Your task to perform on an android device: Search for the best selling books on Target. Image 0: 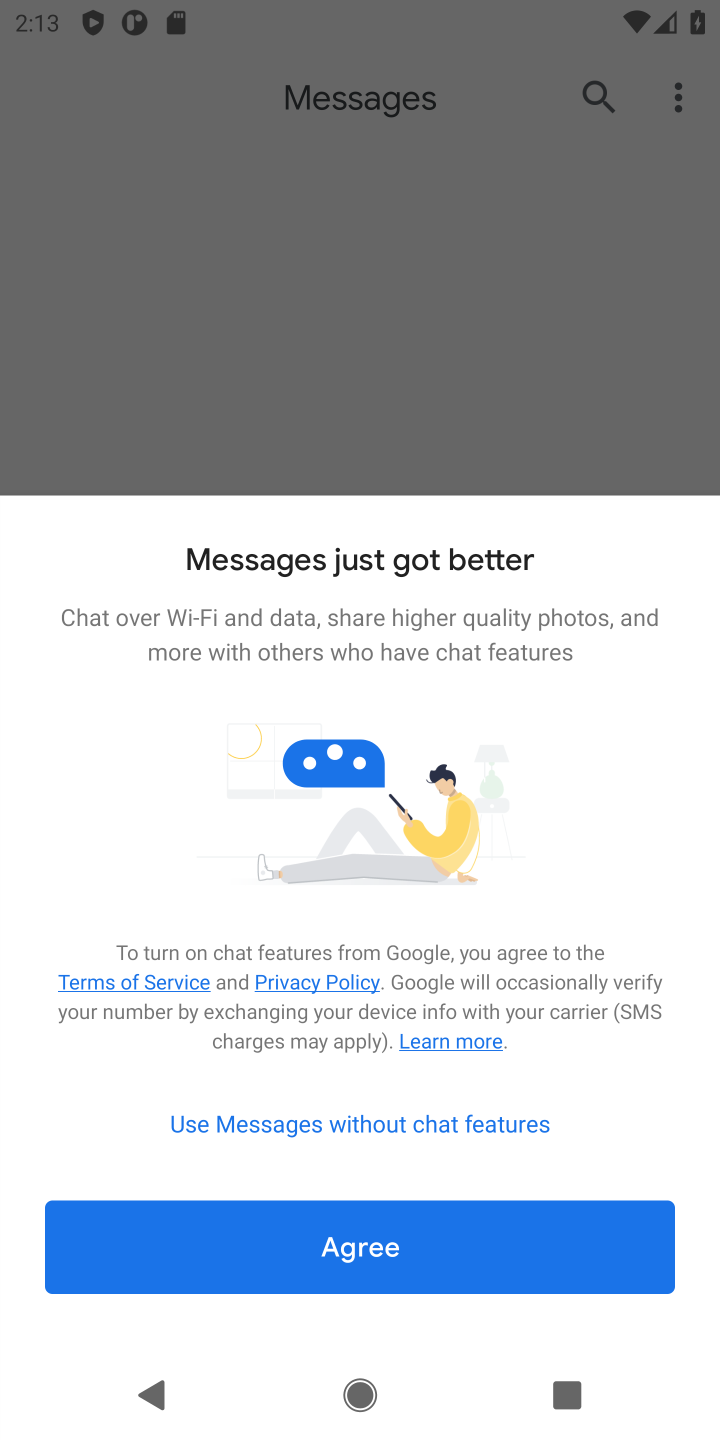
Step 0: press home button
Your task to perform on an android device: Search for the best selling books on Target. Image 1: 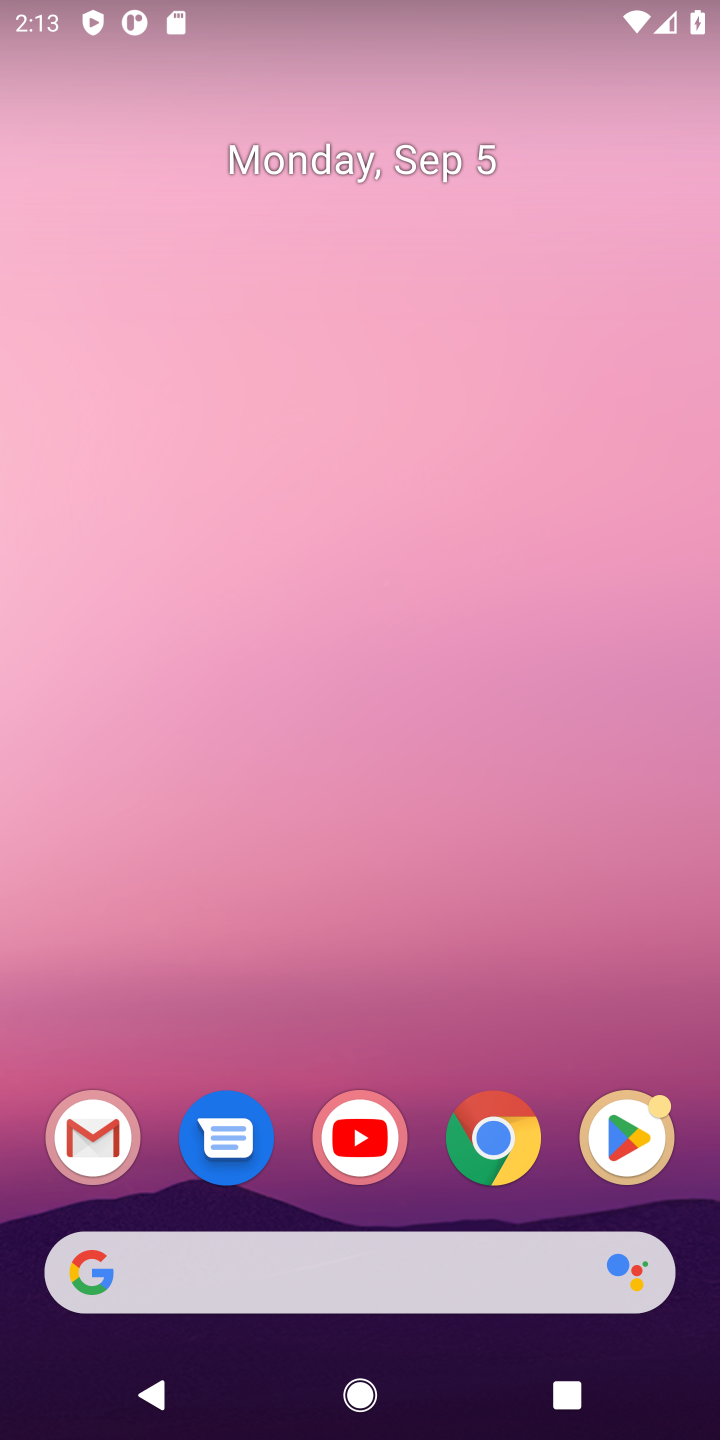
Step 1: click (508, 1133)
Your task to perform on an android device: Search for the best selling books on Target. Image 2: 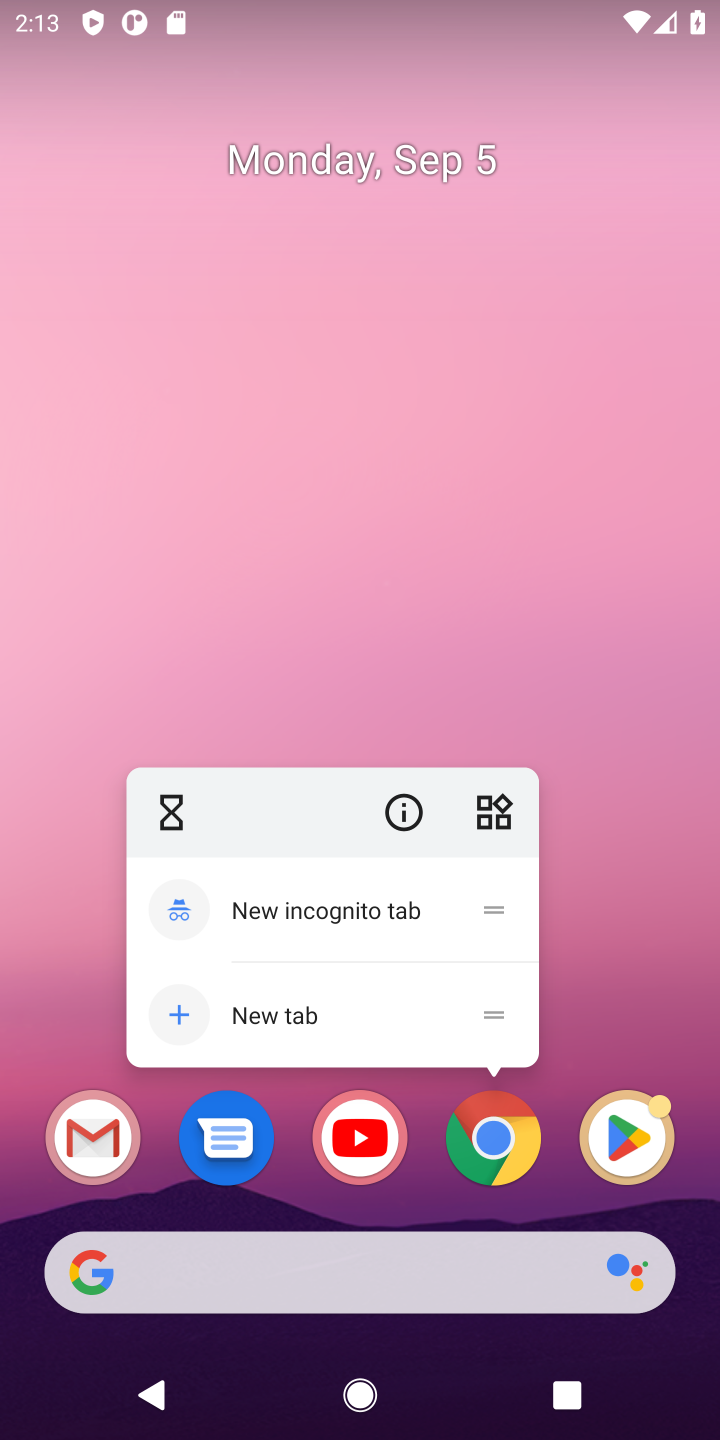
Step 2: click (508, 1135)
Your task to perform on an android device: Search for the best selling books on Target. Image 3: 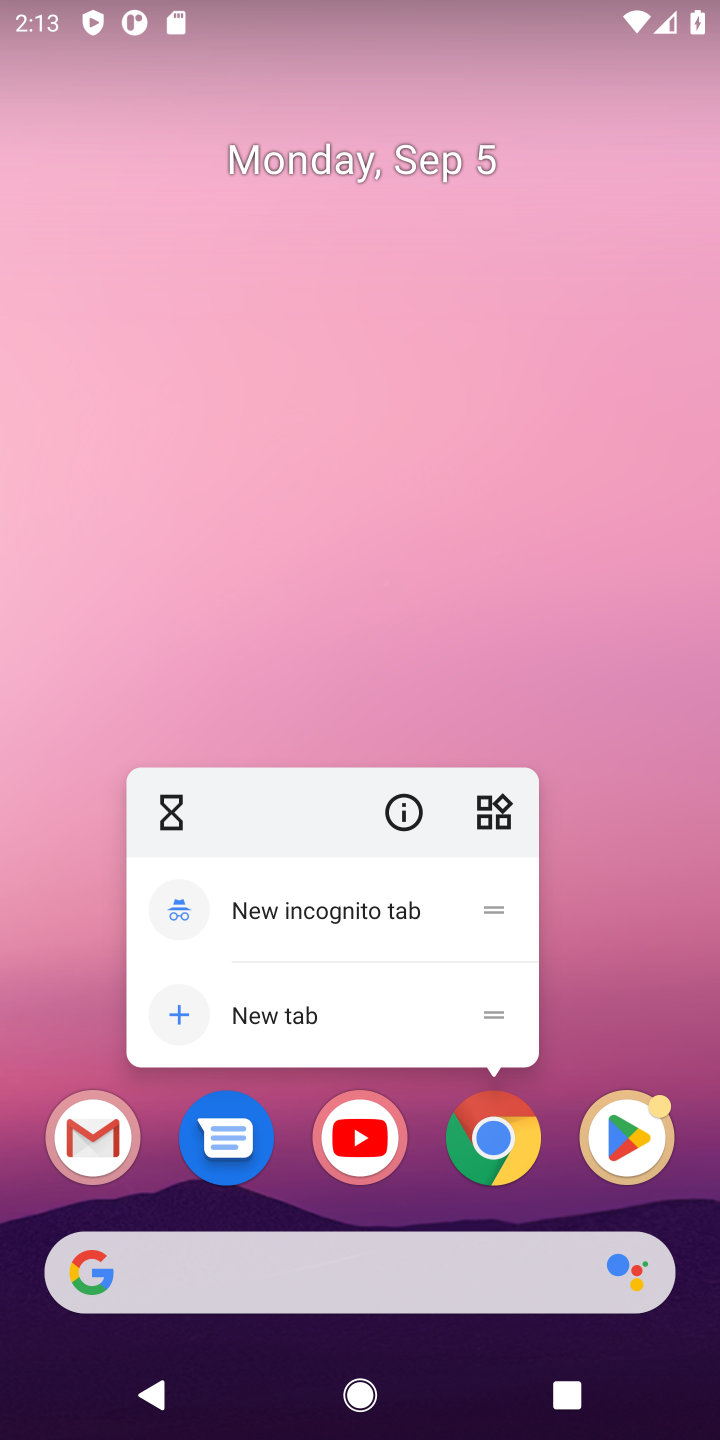
Step 3: click (477, 1145)
Your task to perform on an android device: Search for the best selling books on Target. Image 4: 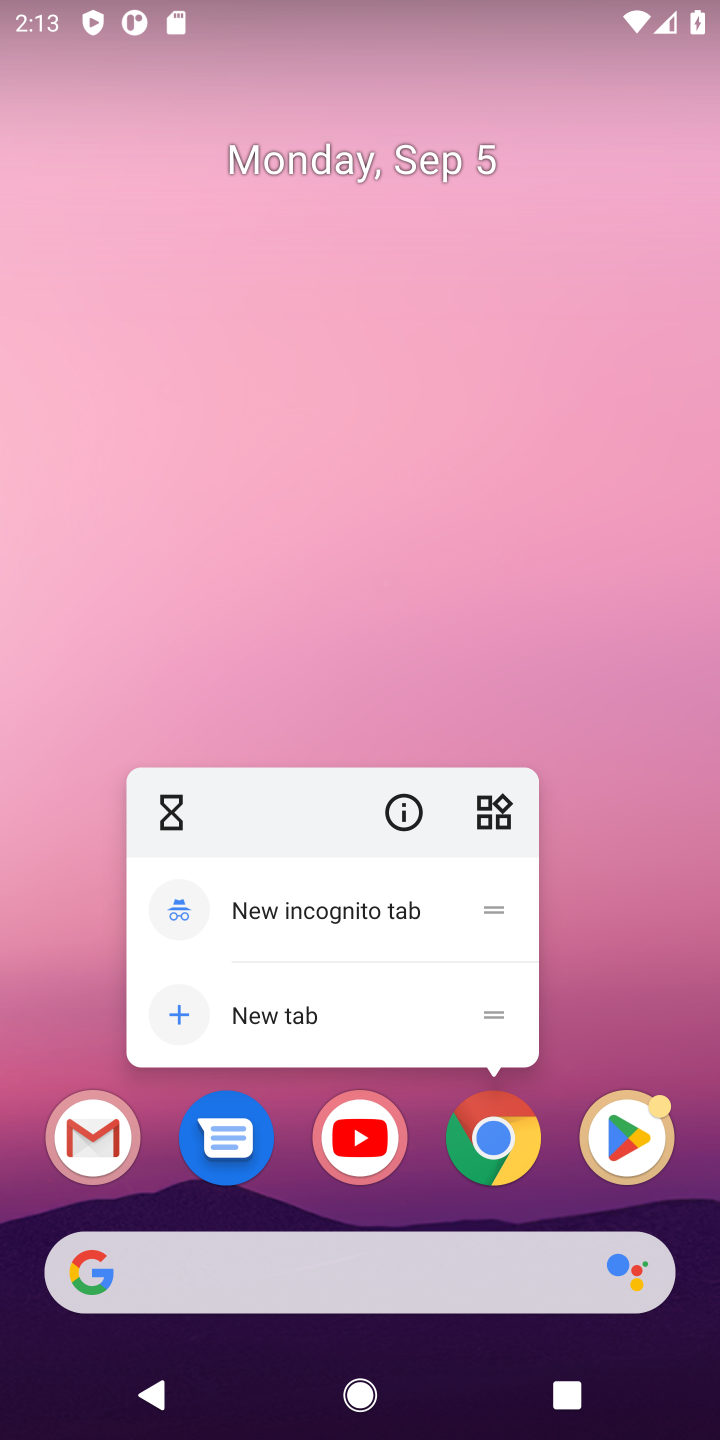
Step 4: click (491, 1150)
Your task to perform on an android device: Search for the best selling books on Target. Image 5: 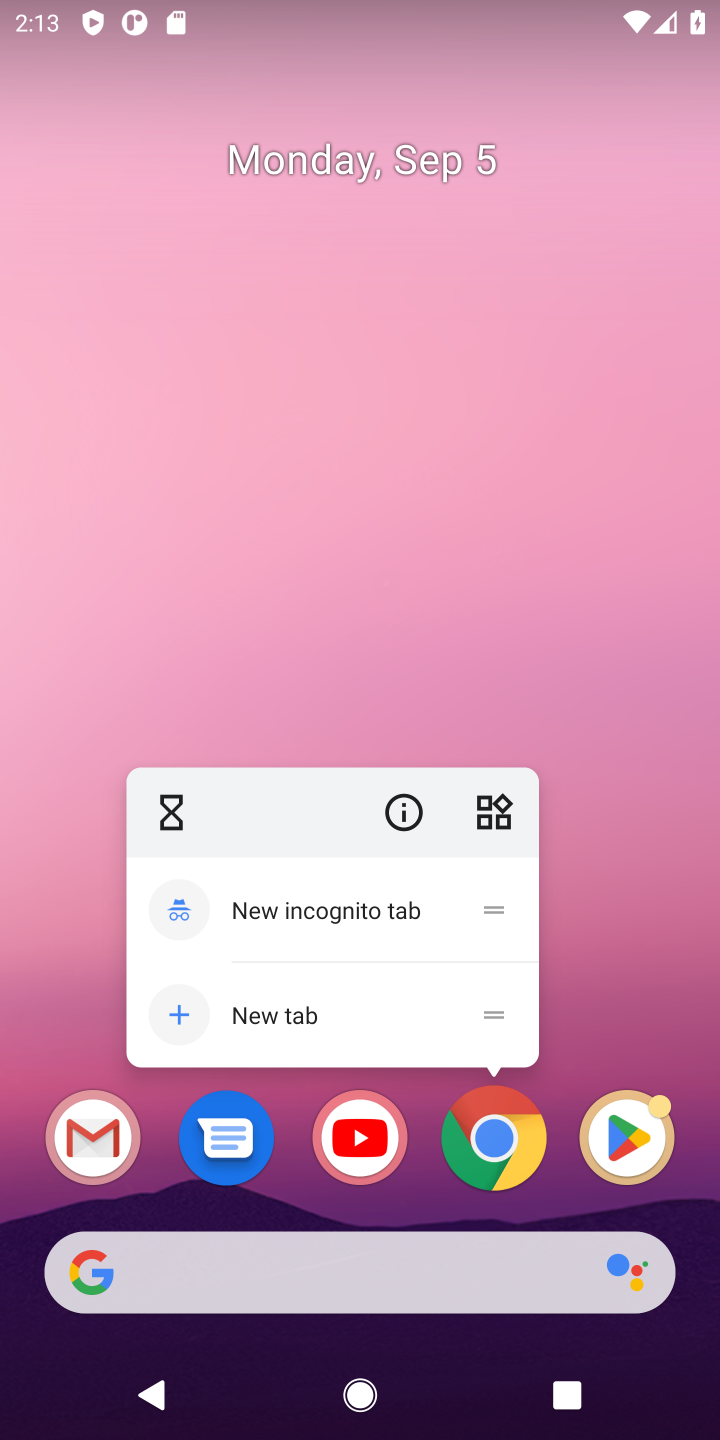
Step 5: click (493, 1150)
Your task to perform on an android device: Search for the best selling books on Target. Image 6: 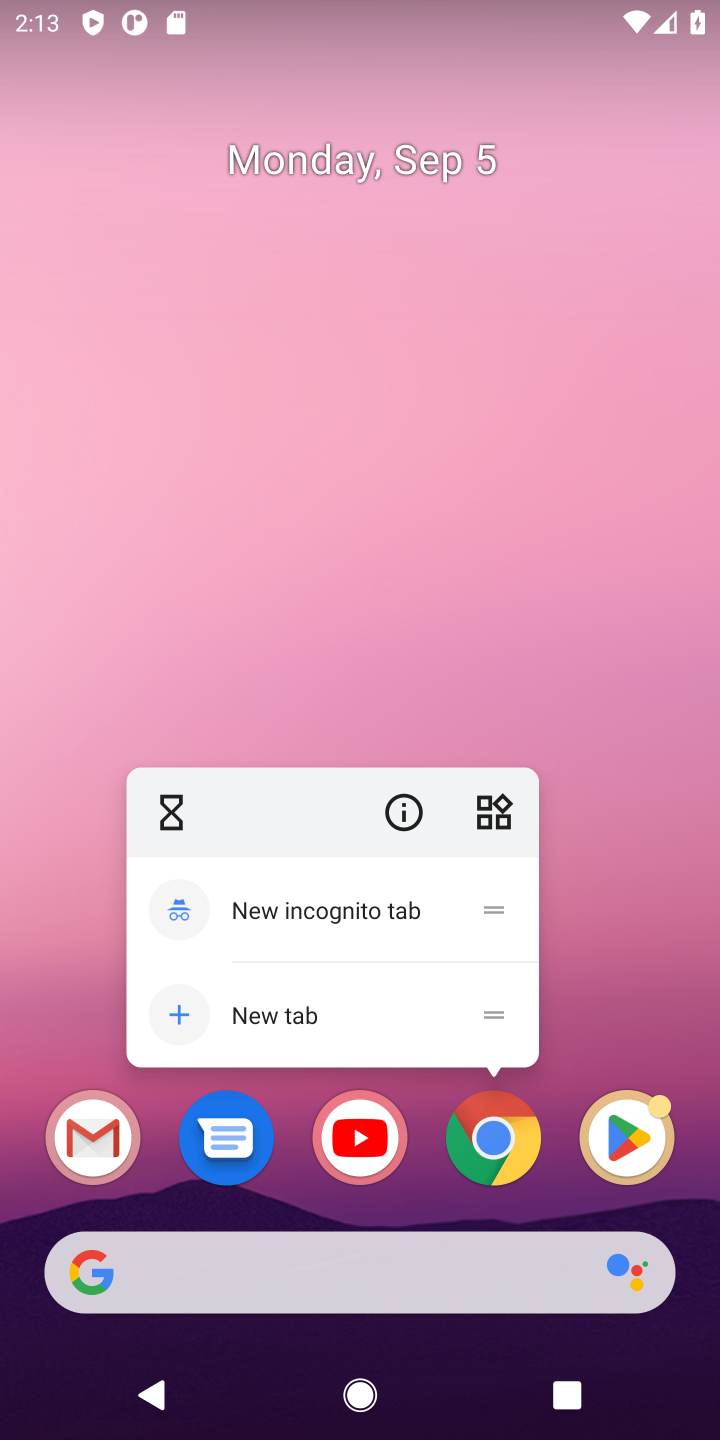
Step 6: click (635, 789)
Your task to perform on an android device: Search for the best selling books on Target. Image 7: 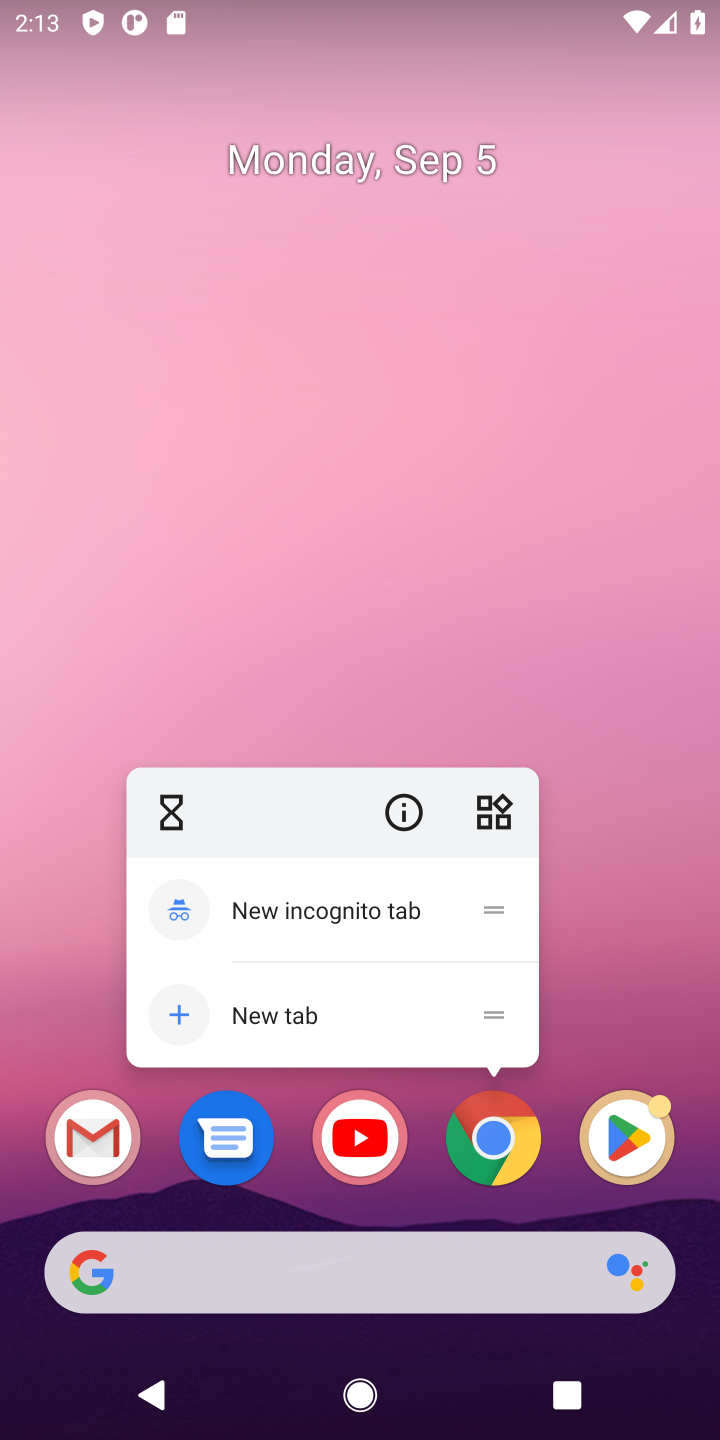
Step 7: click (493, 1140)
Your task to perform on an android device: Search for the best selling books on Target. Image 8: 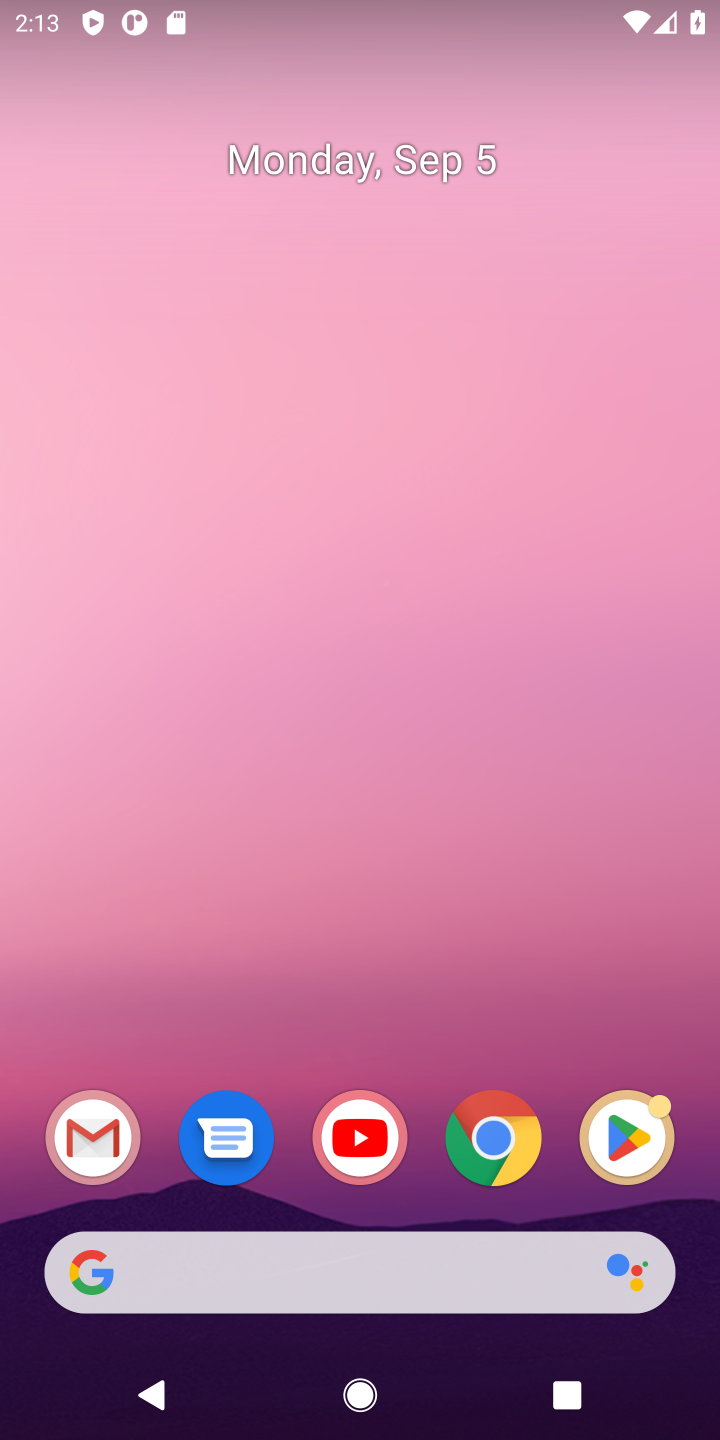
Step 8: click (496, 1136)
Your task to perform on an android device: Search for the best selling books on Target. Image 9: 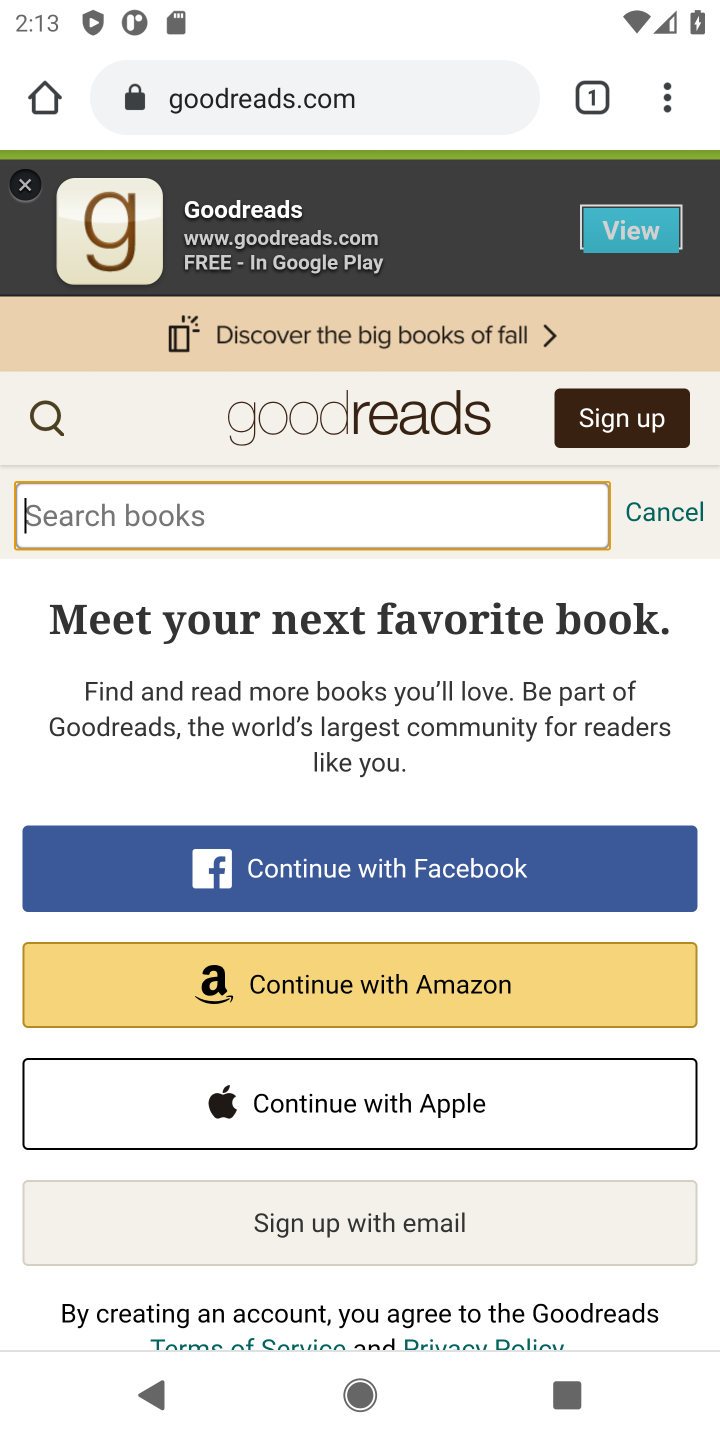
Step 9: click (362, 112)
Your task to perform on an android device: Search for the best selling books on Target. Image 10: 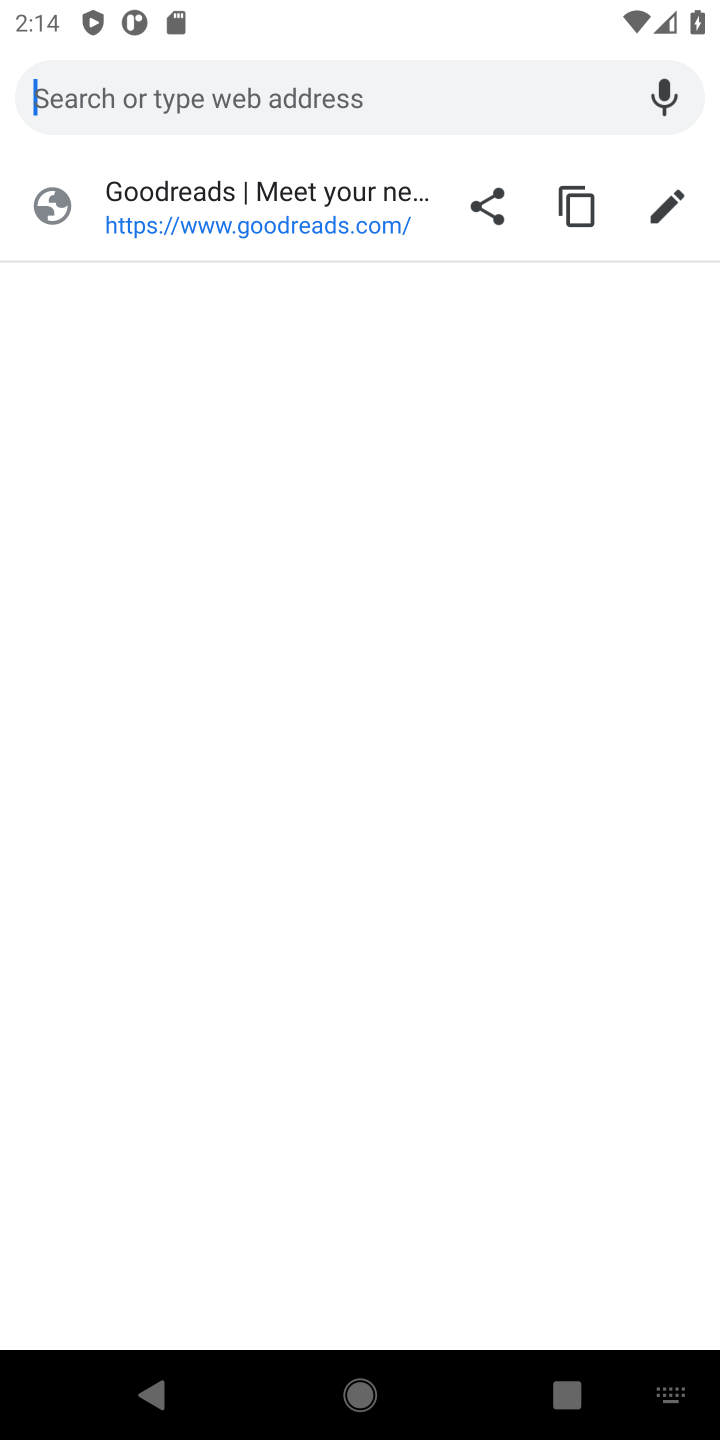
Step 10: type "target"
Your task to perform on an android device: Search for the best selling books on Target. Image 11: 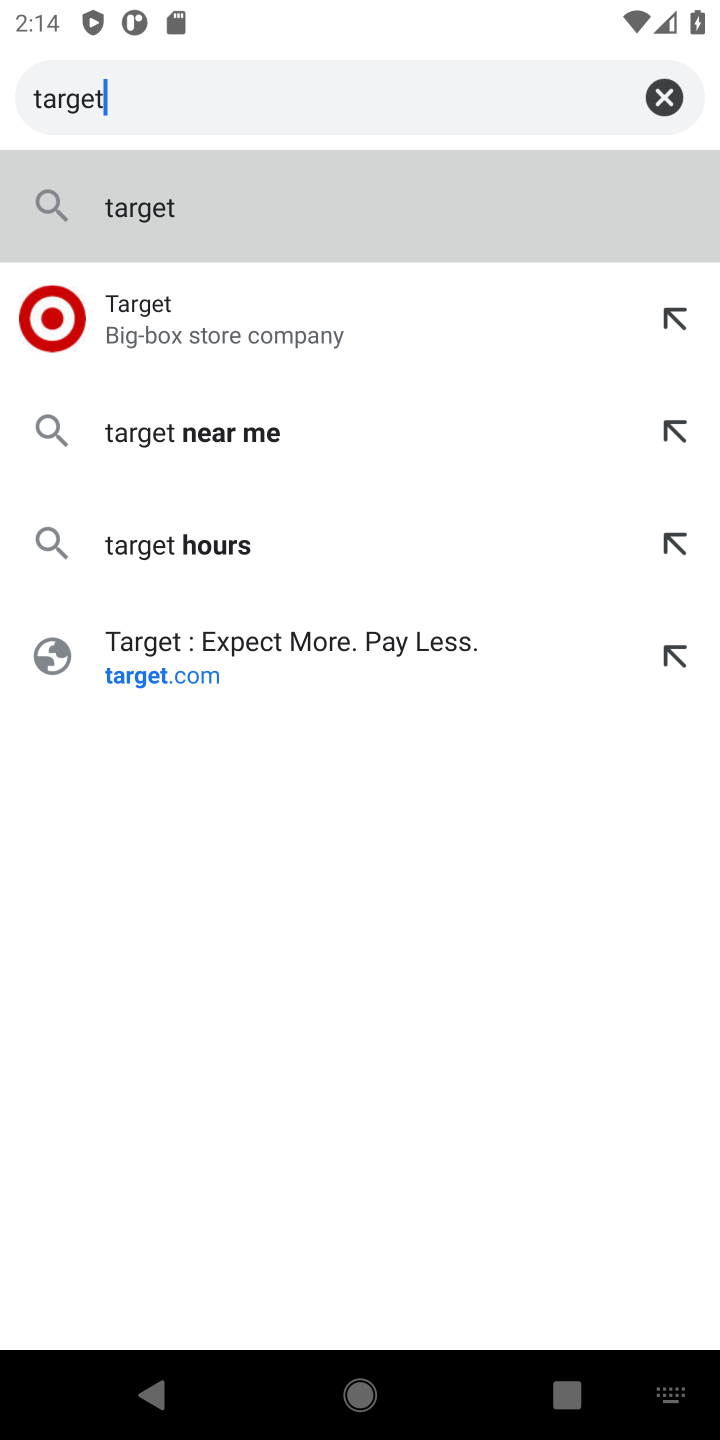
Step 11: click (198, 315)
Your task to perform on an android device: Search for the best selling books on Target. Image 12: 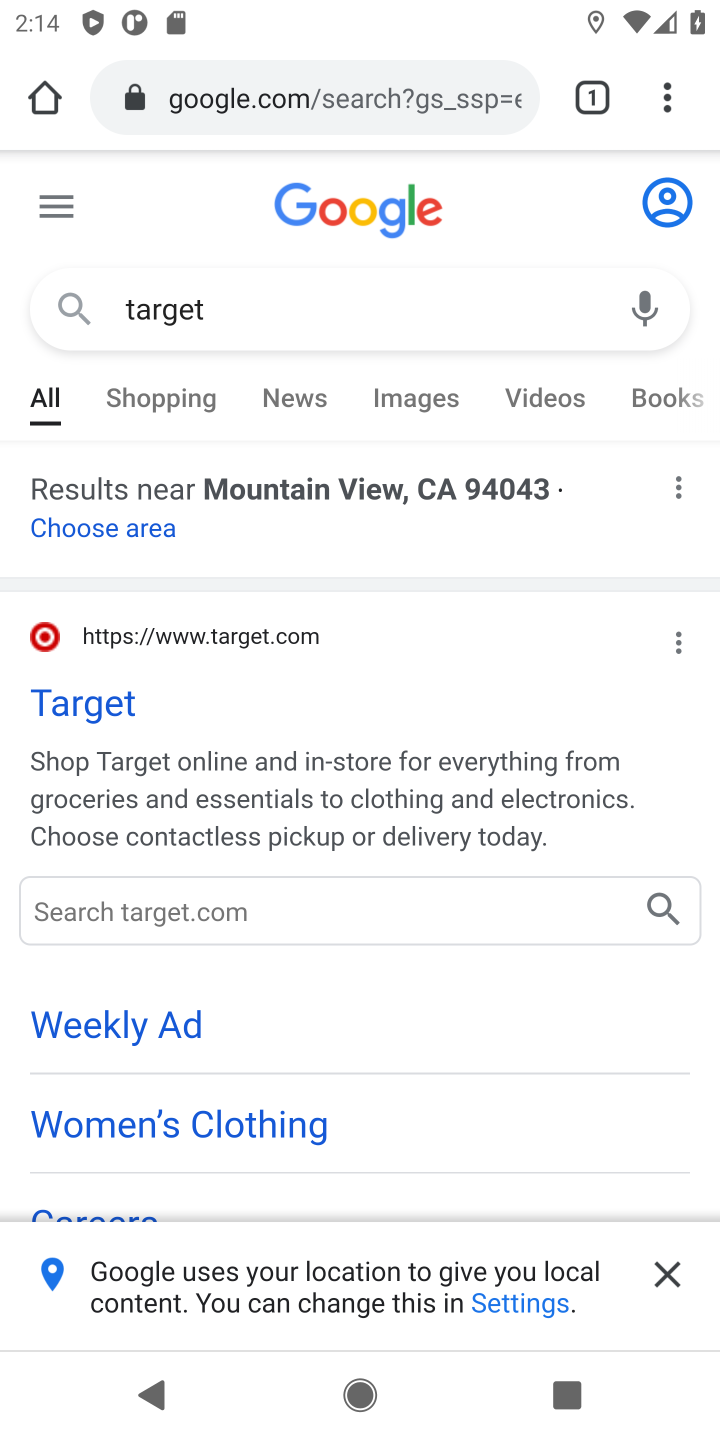
Step 12: click (55, 715)
Your task to perform on an android device: Search for the best selling books on Target. Image 13: 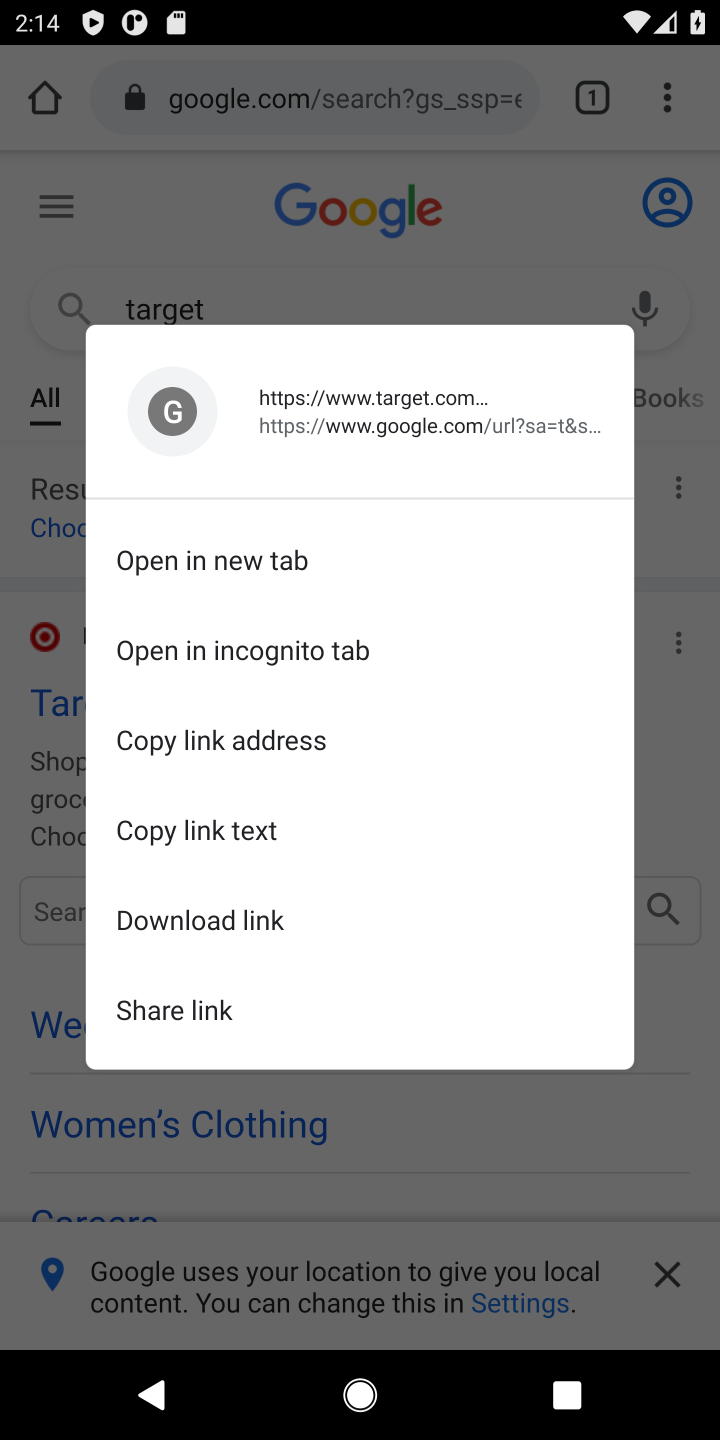
Step 13: click (665, 1284)
Your task to perform on an android device: Search for the best selling books on Target. Image 14: 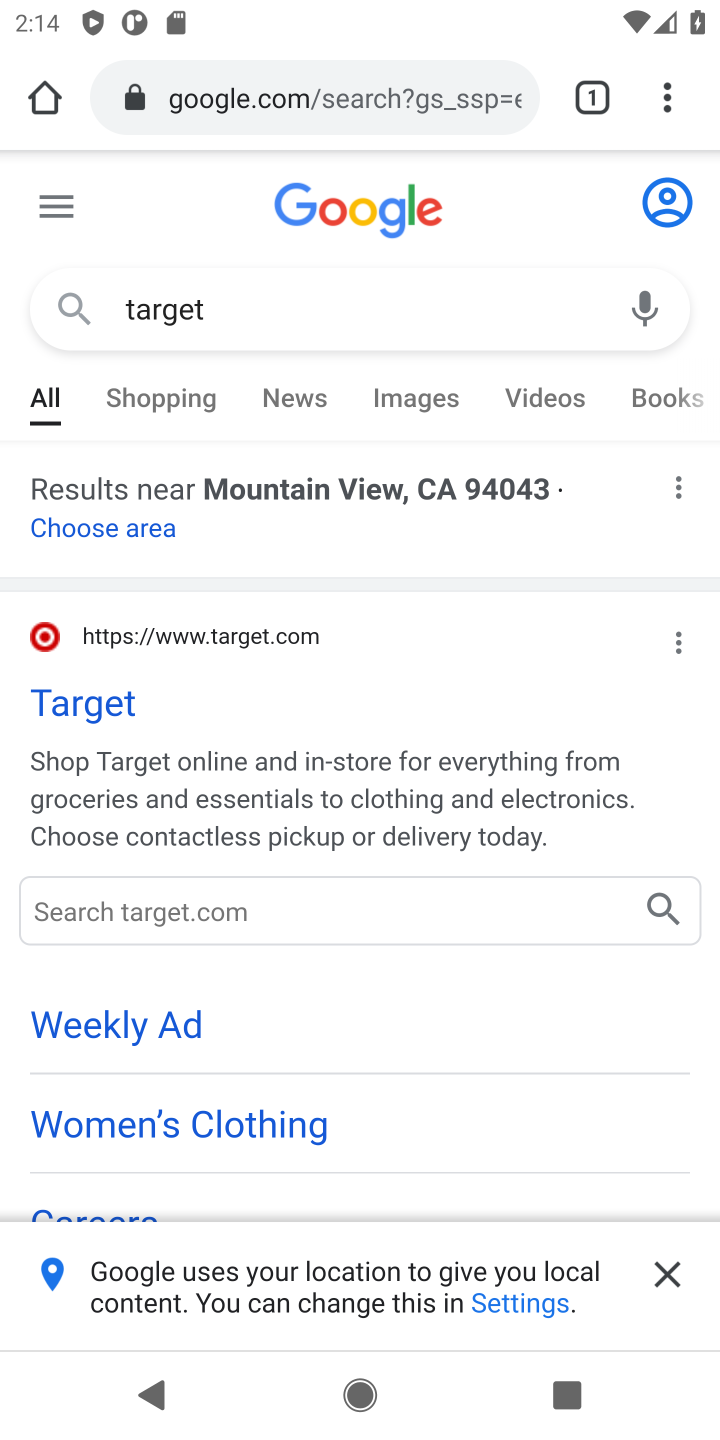
Step 14: click (75, 698)
Your task to perform on an android device: Search for the best selling books on Target. Image 15: 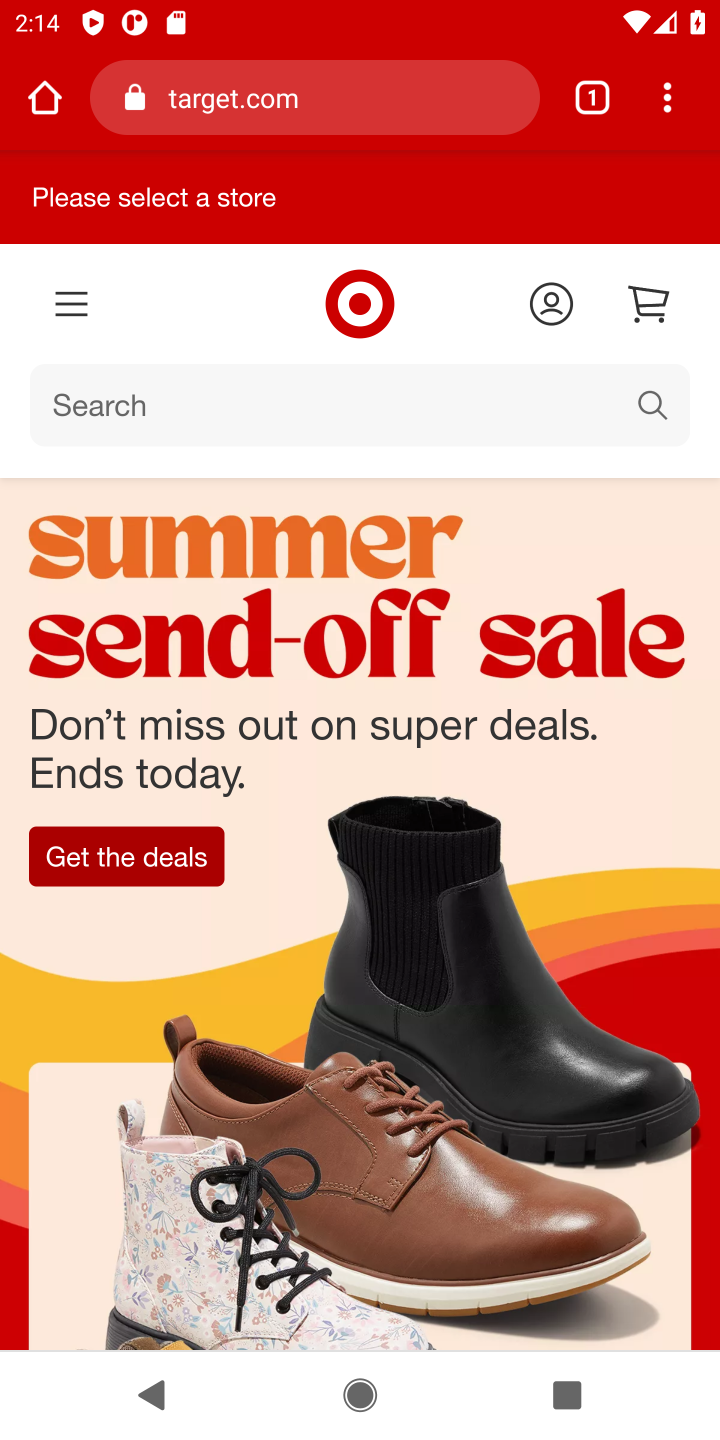
Step 15: click (159, 395)
Your task to perform on an android device: Search for the best selling books on Target. Image 16: 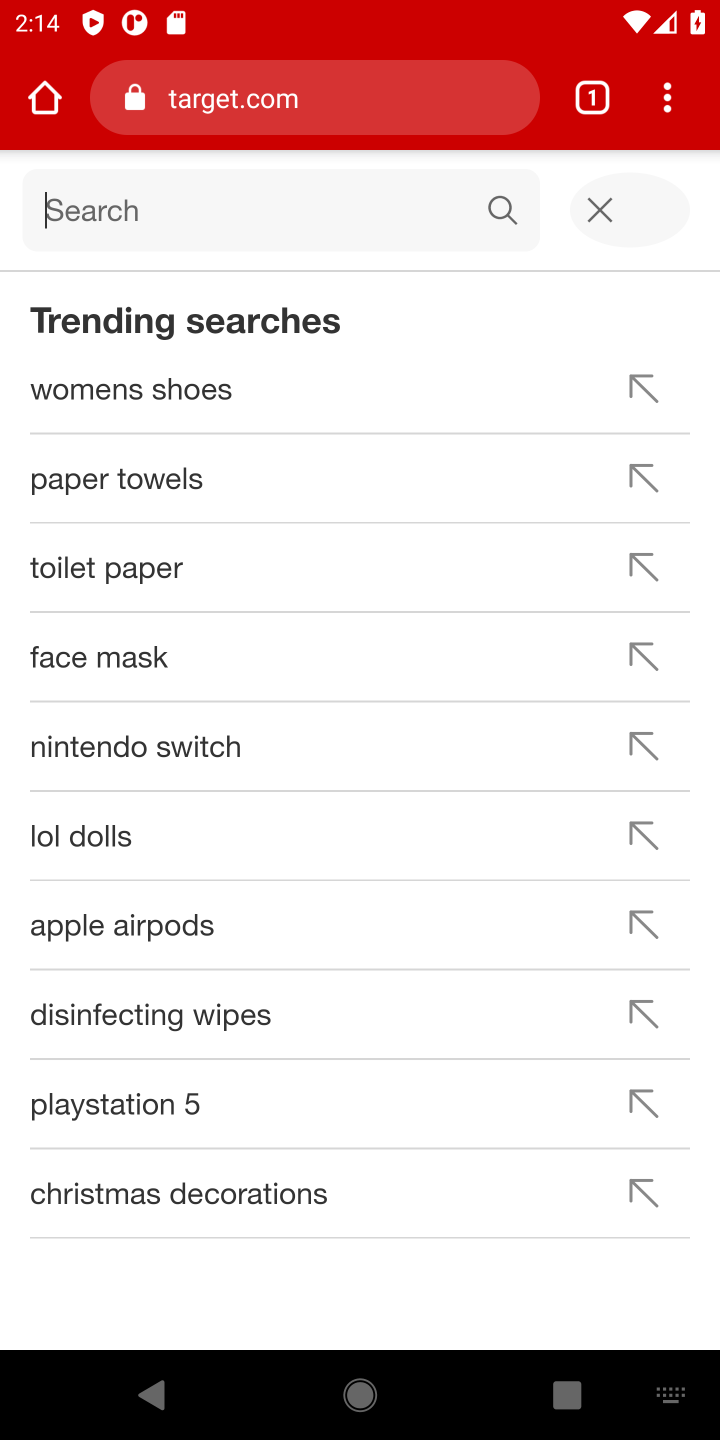
Step 16: type "best selling book"
Your task to perform on an android device: Search for the best selling books on Target. Image 17: 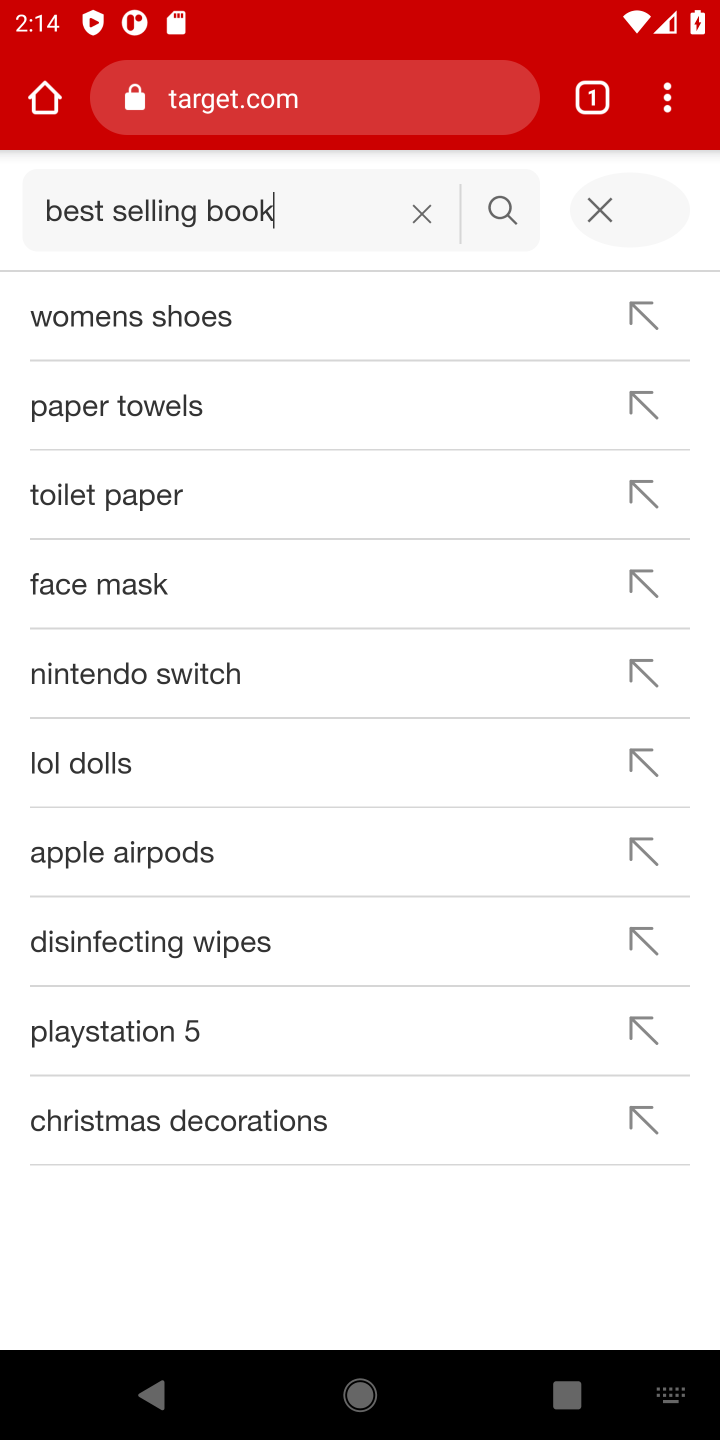
Step 17: type ""
Your task to perform on an android device: Search for the best selling books on Target. Image 18: 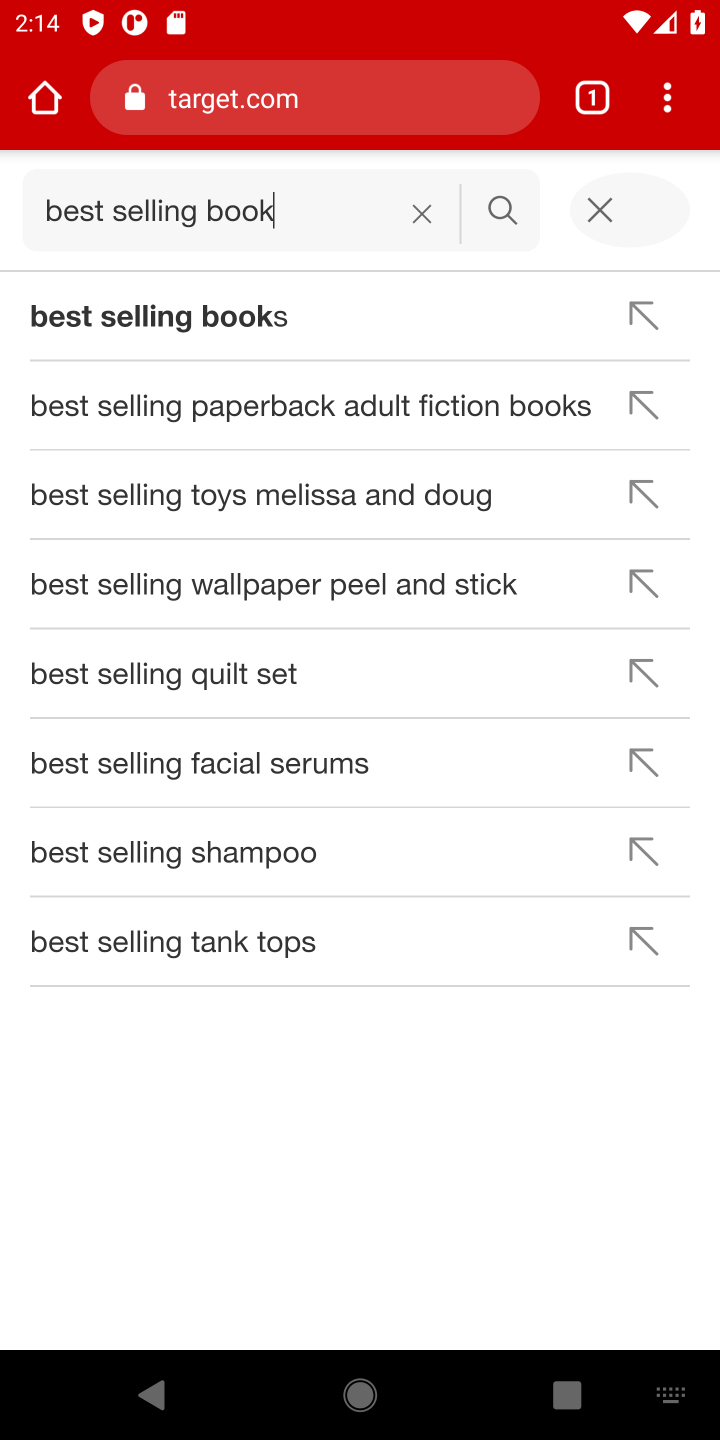
Step 18: click (184, 312)
Your task to perform on an android device: Search for the best selling books on Target. Image 19: 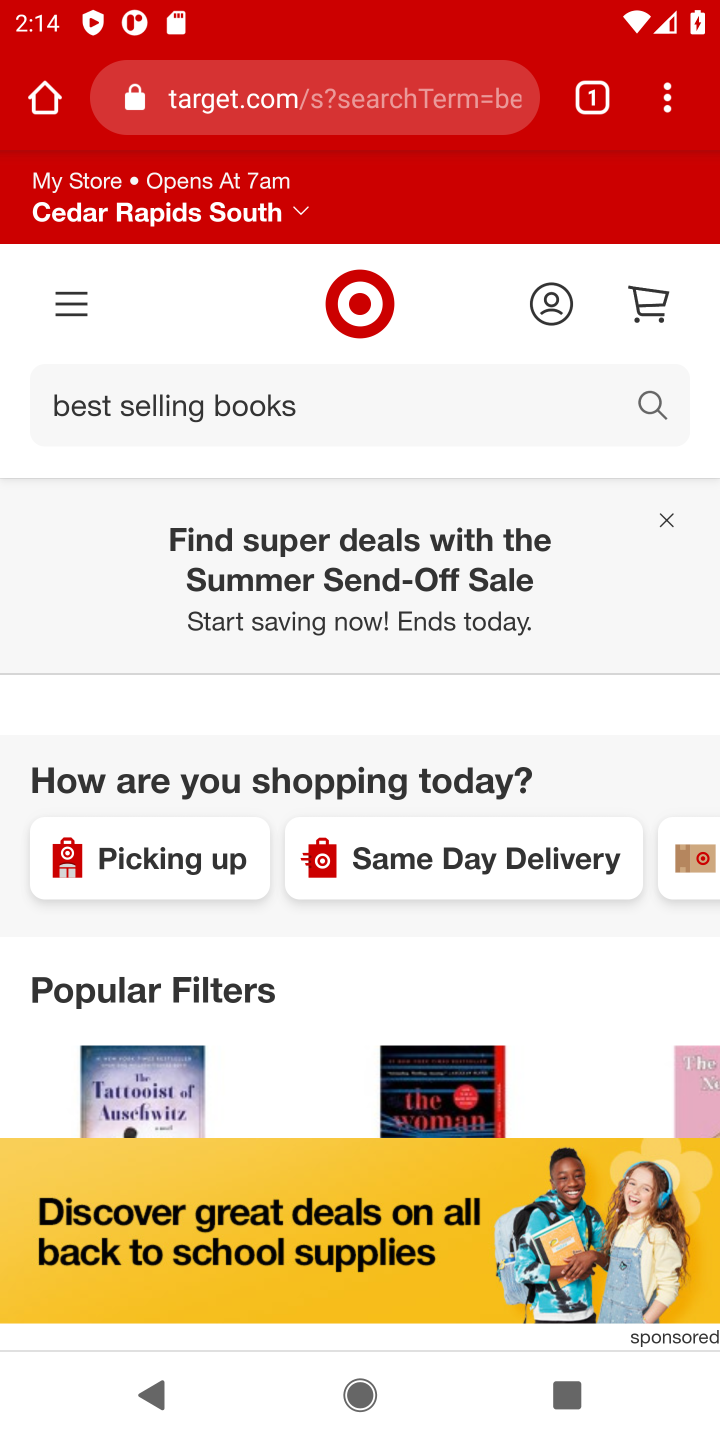
Step 19: drag from (576, 987) to (570, 547)
Your task to perform on an android device: Search for the best selling books on Target. Image 20: 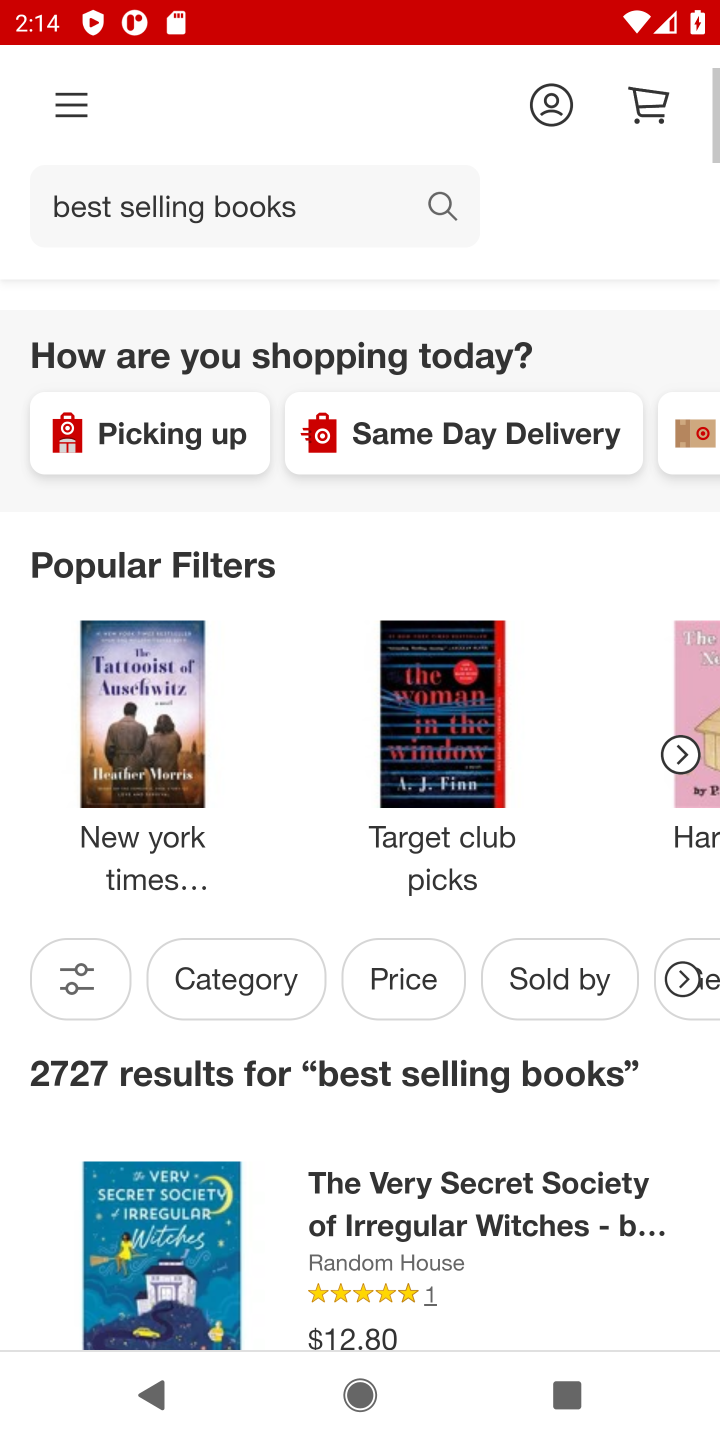
Step 20: drag from (415, 1199) to (503, 578)
Your task to perform on an android device: Search for the best selling books on Target. Image 21: 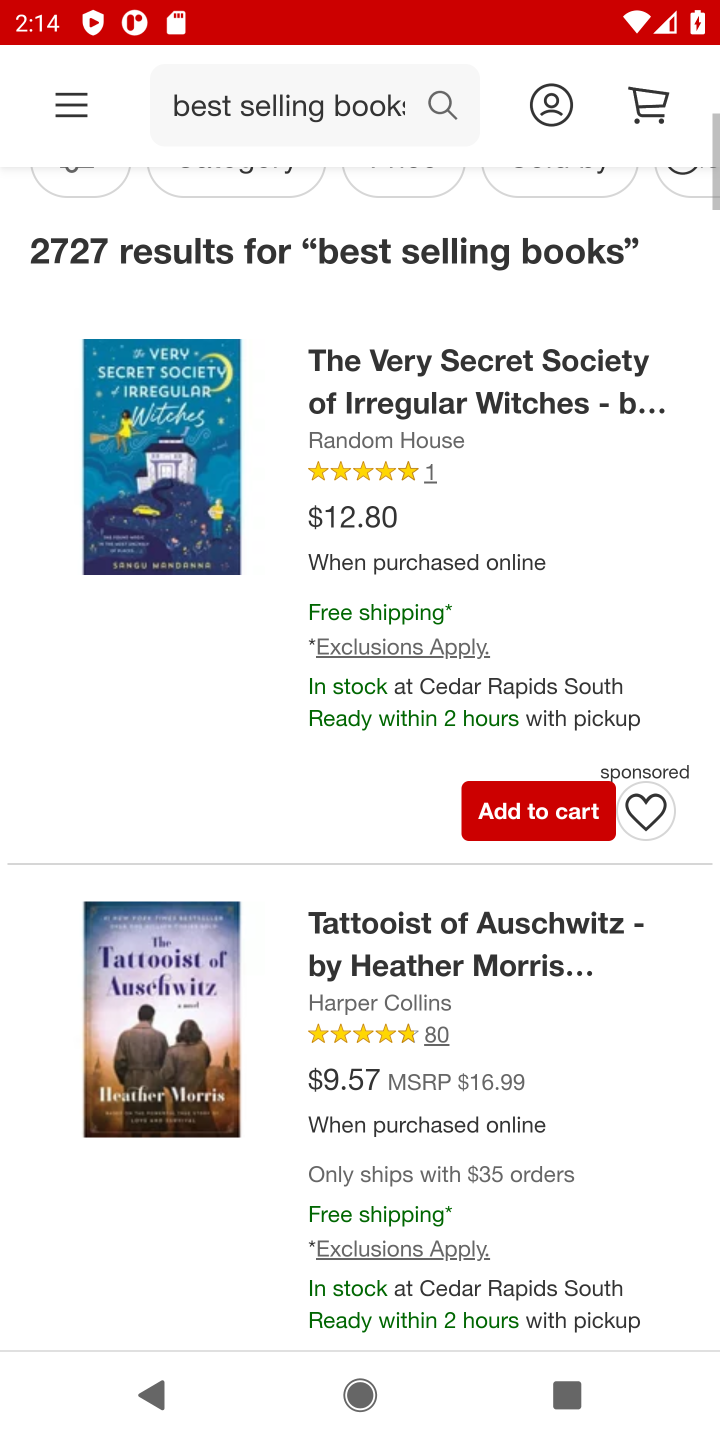
Step 21: drag from (326, 968) to (377, 588)
Your task to perform on an android device: Search for the best selling books on Target. Image 22: 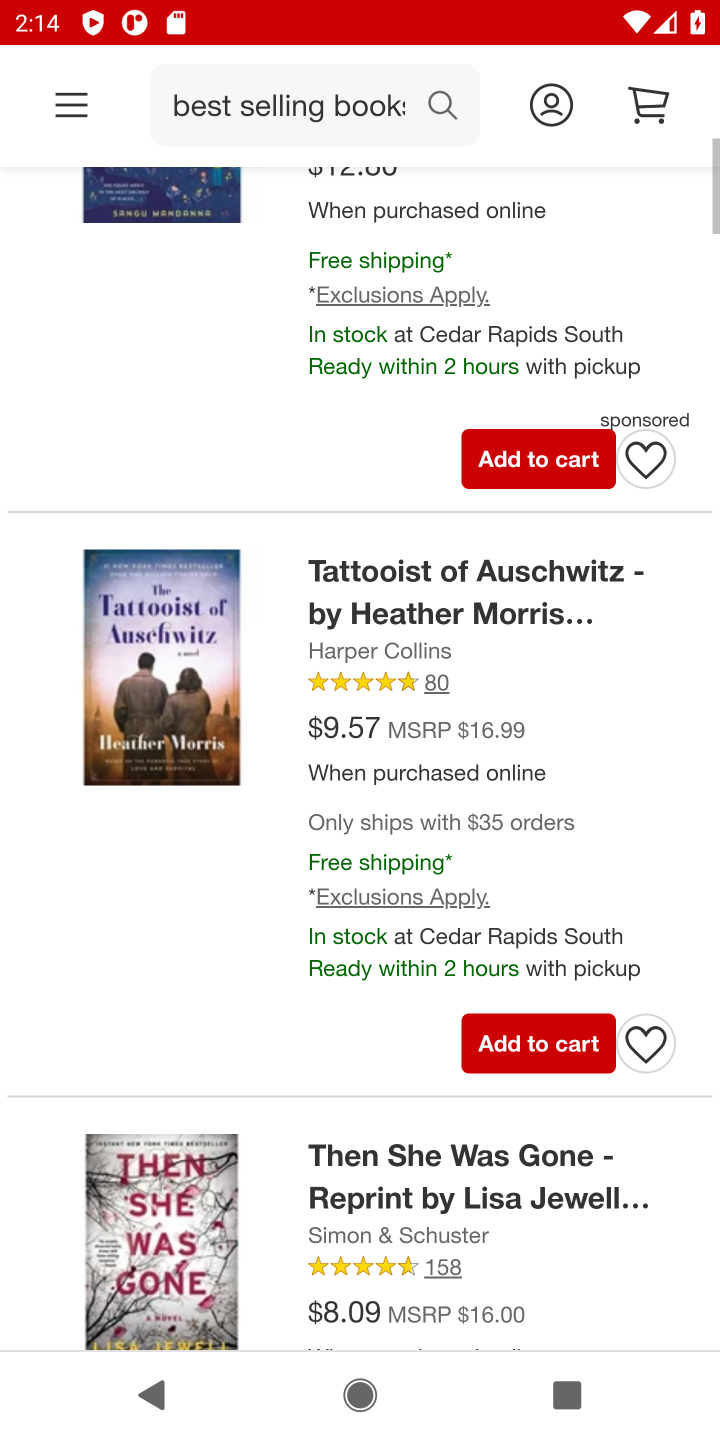
Step 22: drag from (272, 1098) to (272, 442)
Your task to perform on an android device: Search for the best selling books on Target. Image 23: 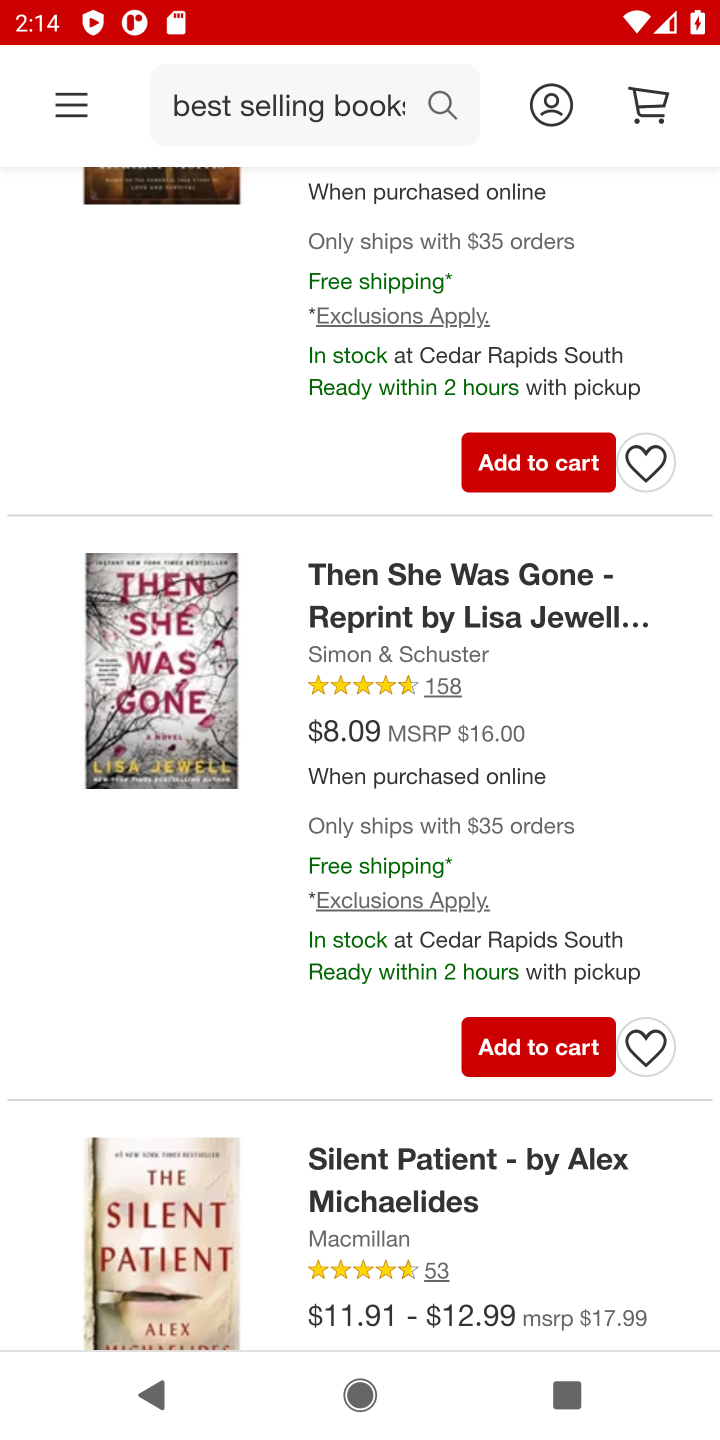
Step 23: drag from (362, 1224) to (353, 786)
Your task to perform on an android device: Search for the best selling books on Target. Image 24: 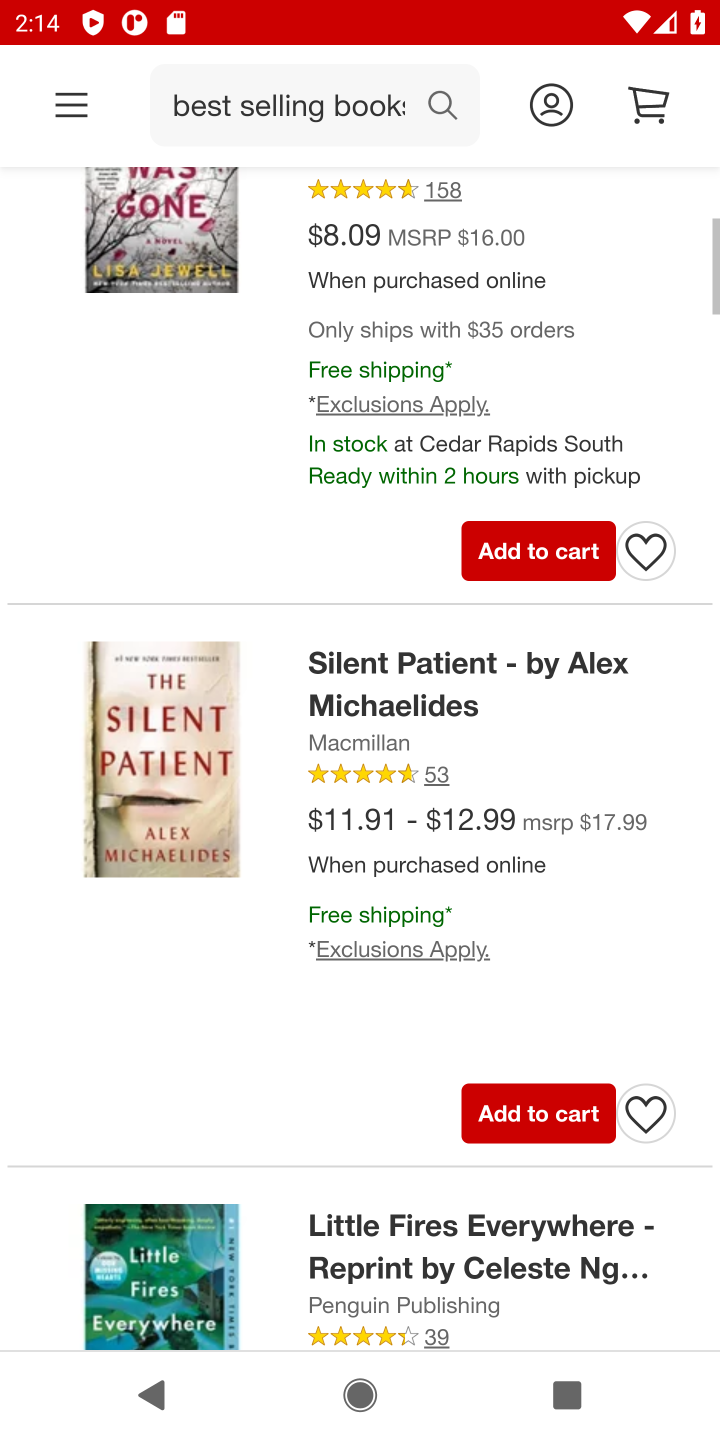
Step 24: click (694, 840)
Your task to perform on an android device: Search for the best selling books on Target. Image 25: 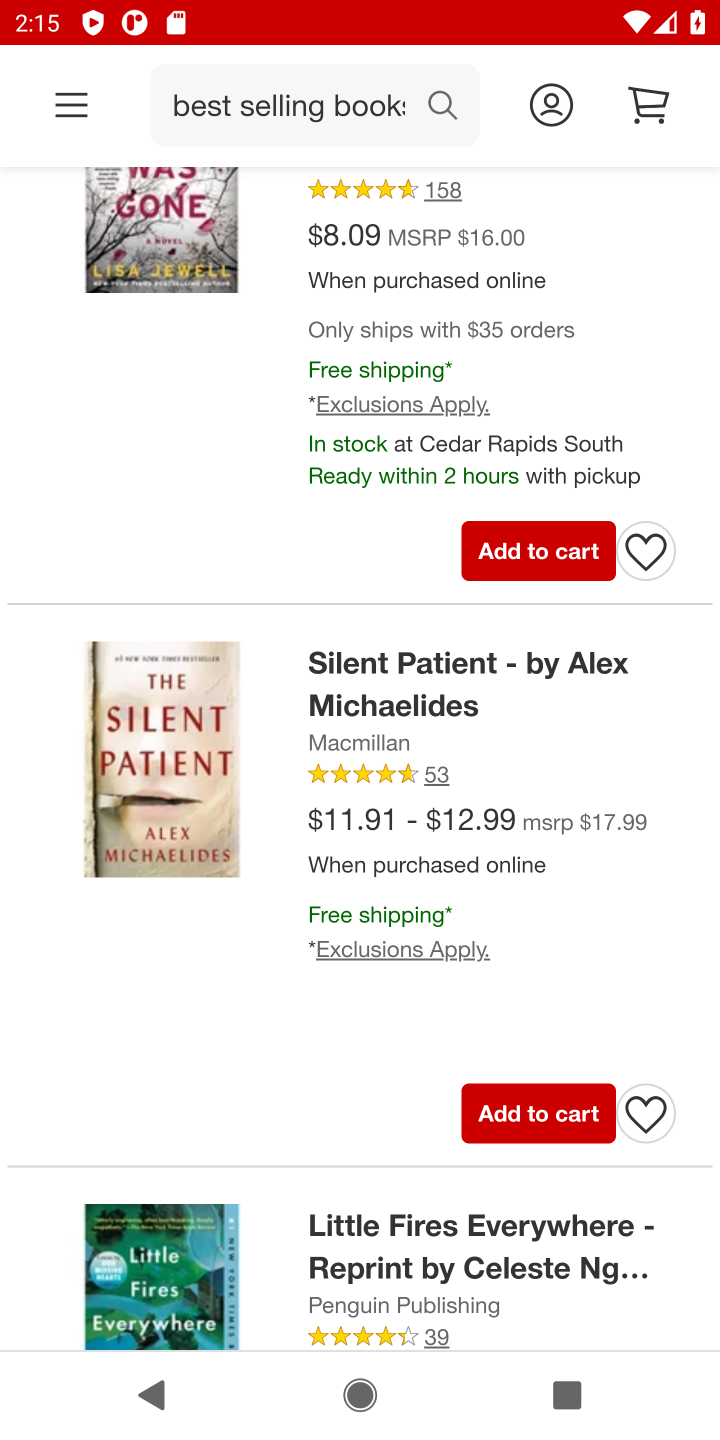
Step 25: drag from (312, 457) to (719, 717)
Your task to perform on an android device: Search for the best selling books on Target. Image 26: 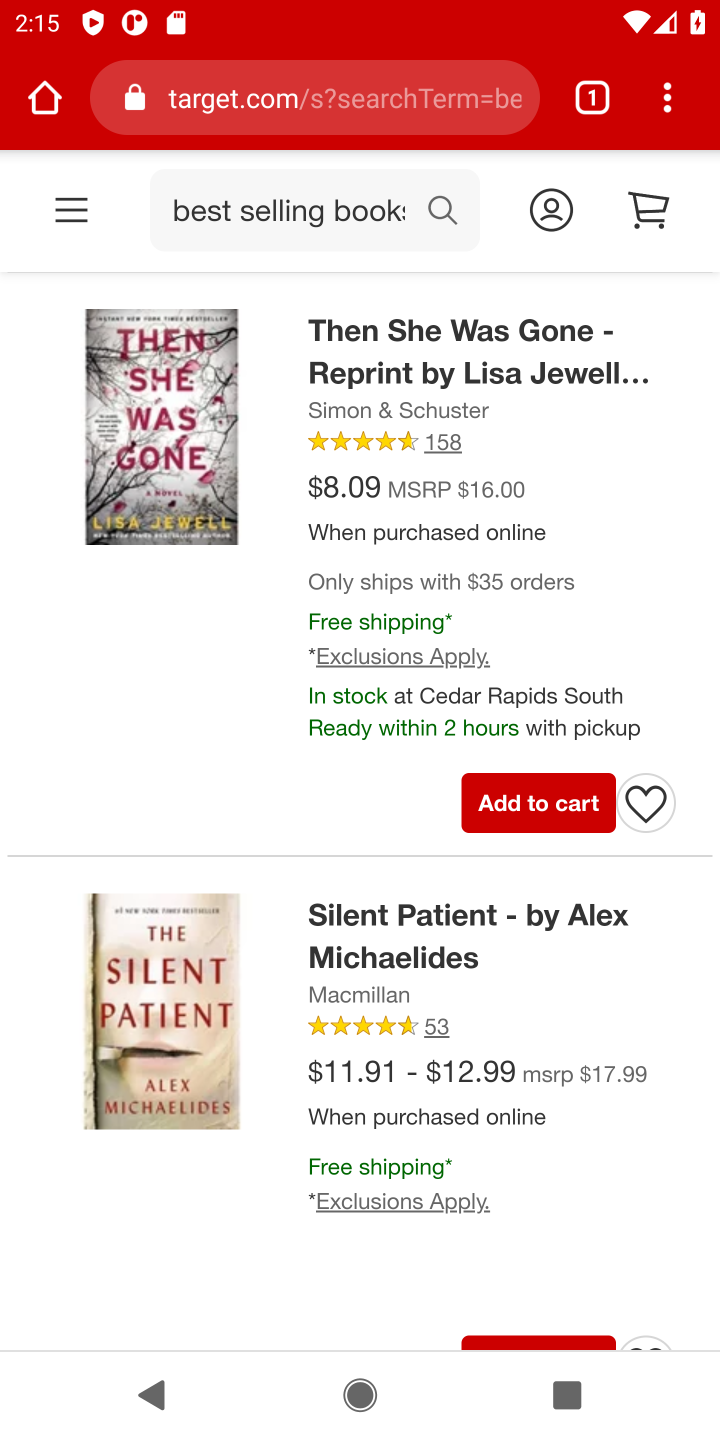
Step 26: drag from (717, 672) to (710, 1147)
Your task to perform on an android device: Search for the best selling books on Target. Image 27: 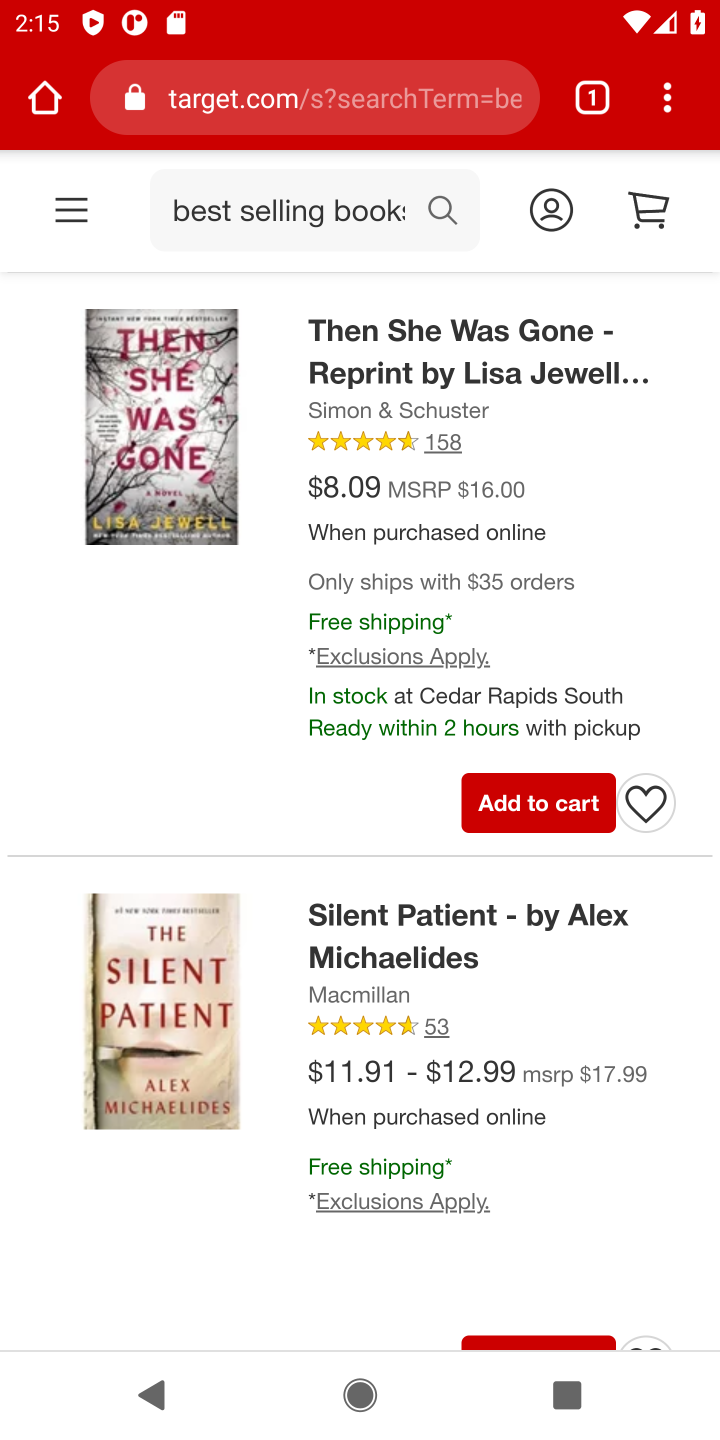
Step 27: drag from (601, 1111) to (699, 549)
Your task to perform on an android device: Search for the best selling books on Target. Image 28: 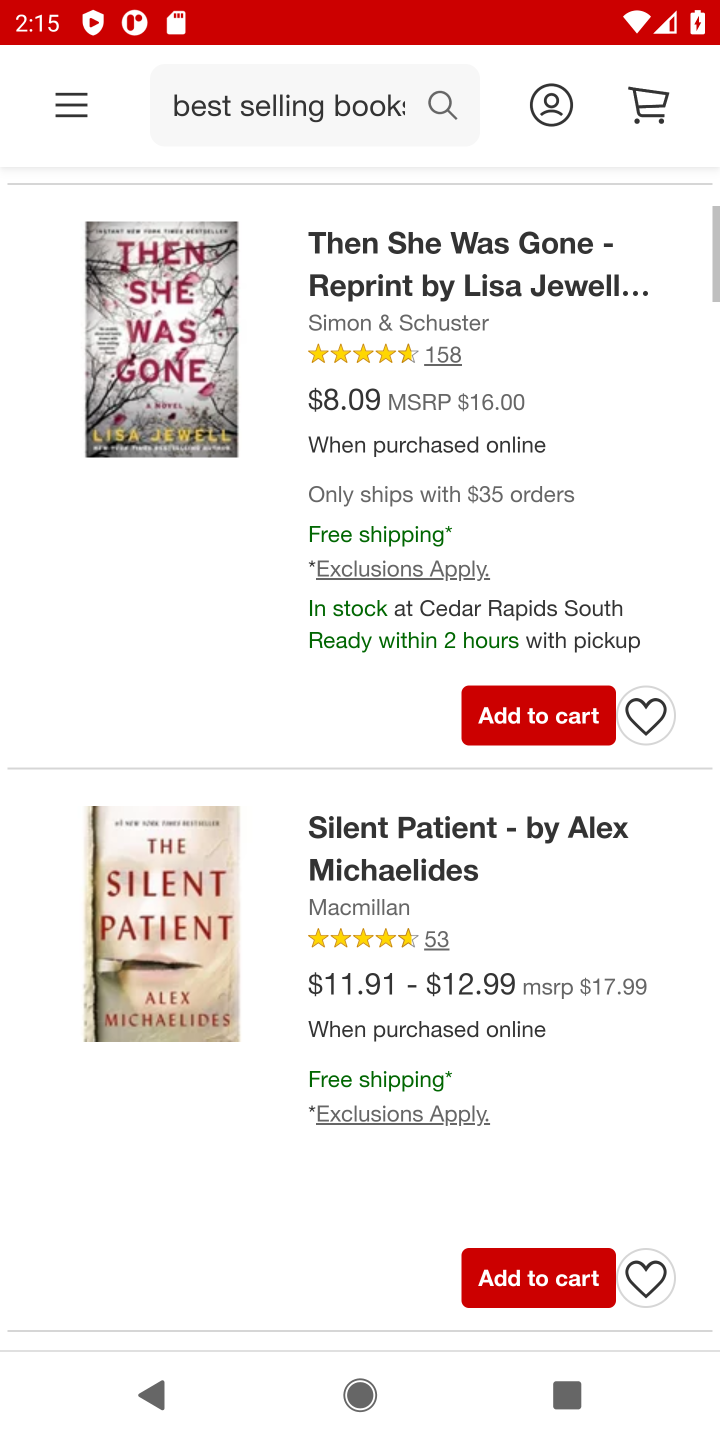
Step 28: drag from (593, 1066) to (647, 585)
Your task to perform on an android device: Search for the best selling books on Target. Image 29: 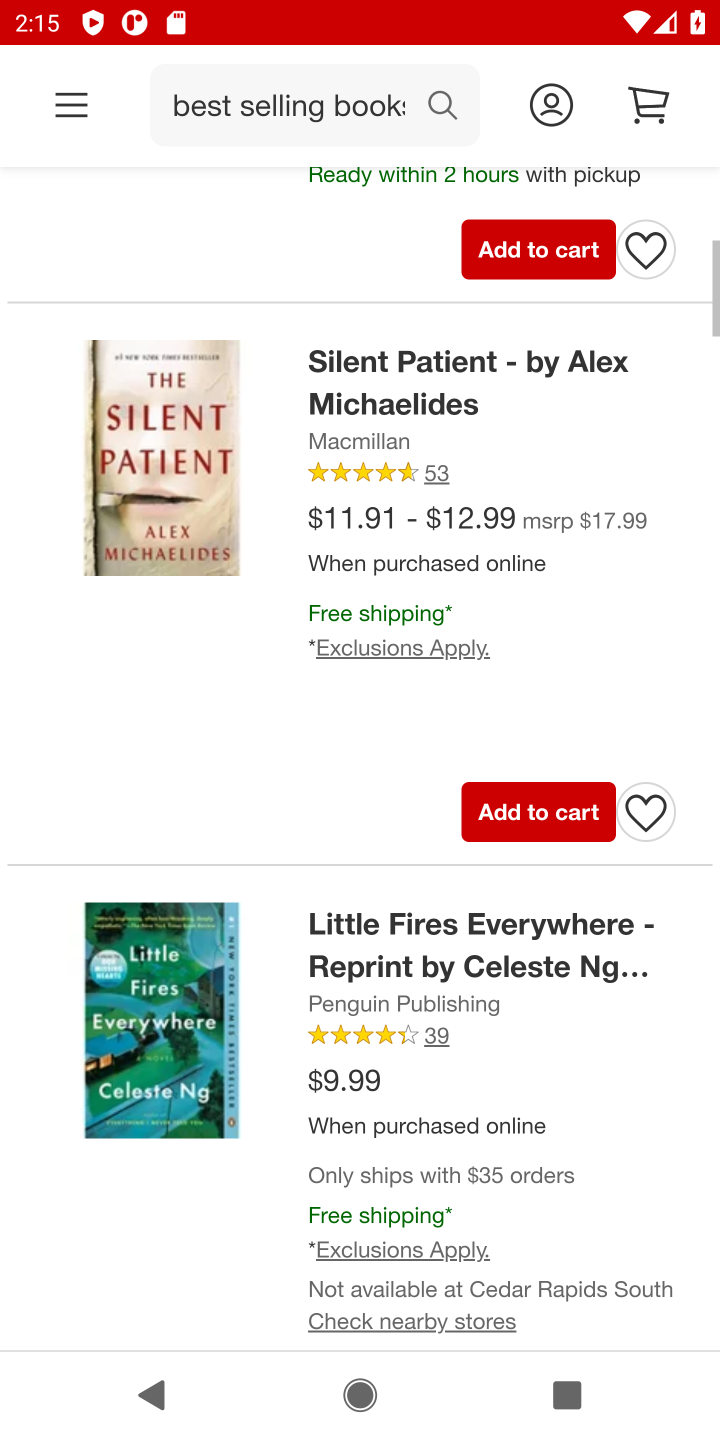
Step 29: click (680, 501)
Your task to perform on an android device: Search for the best selling books on Target. Image 30: 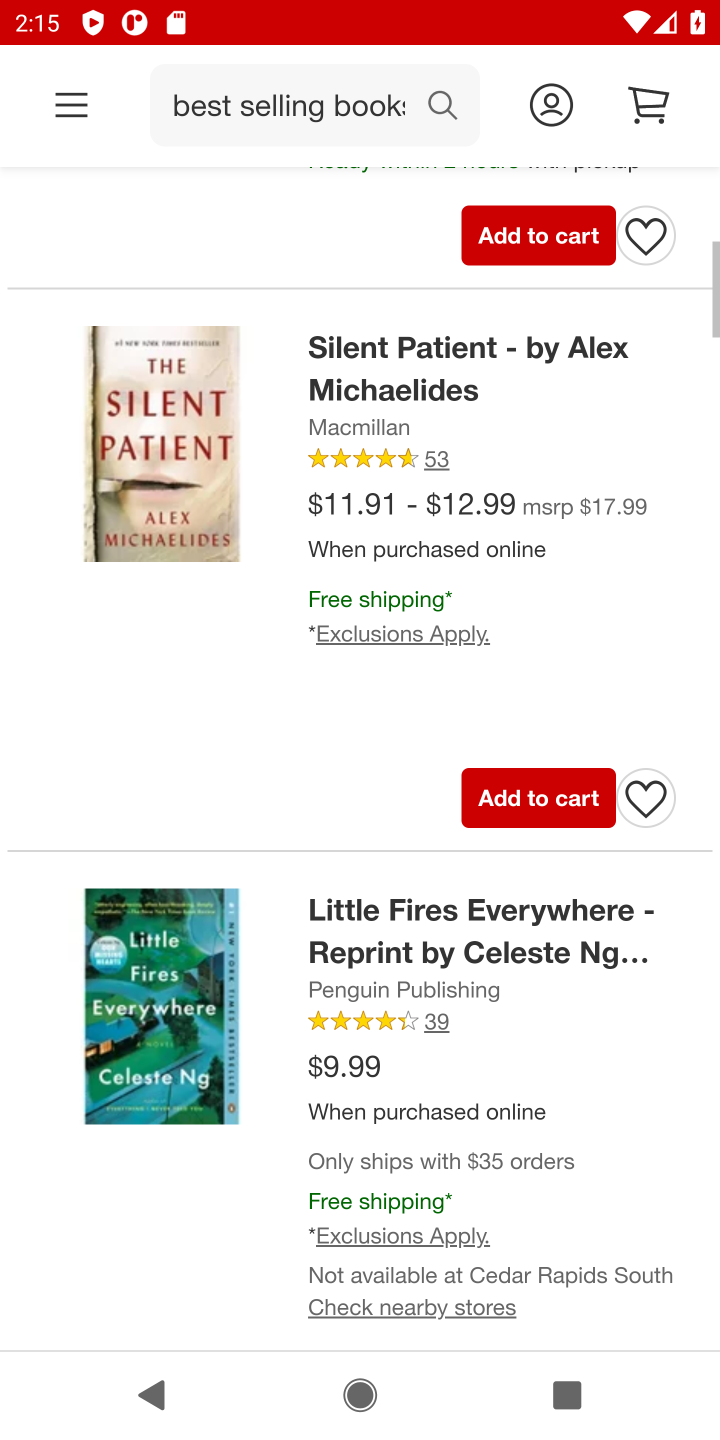
Step 30: task complete